Your task to perform on an android device: check battery use Image 0: 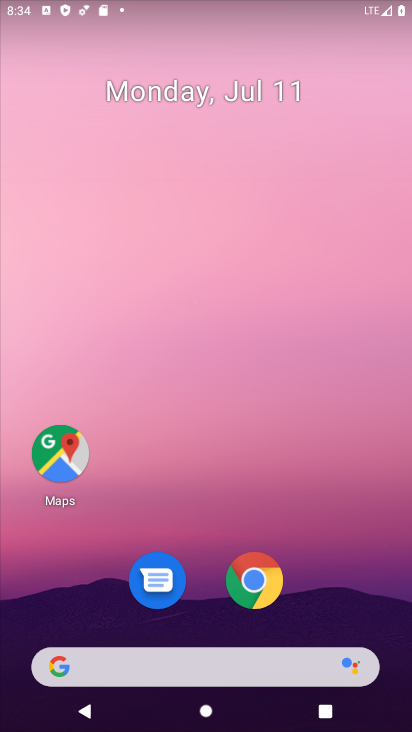
Step 0: drag from (331, 534) to (310, 61)
Your task to perform on an android device: check battery use Image 1: 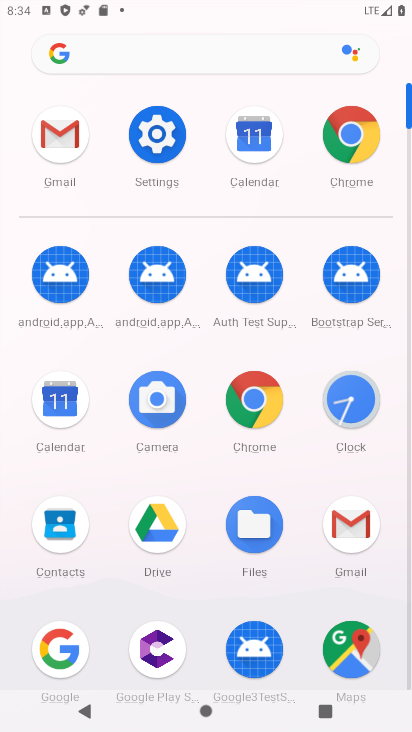
Step 1: click (168, 142)
Your task to perform on an android device: check battery use Image 2: 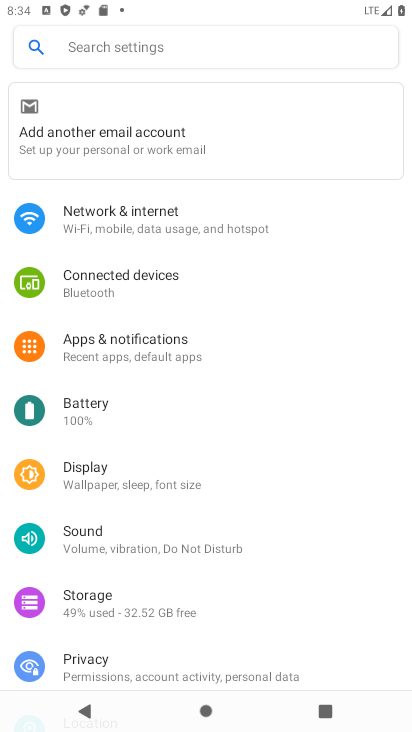
Step 2: click (118, 413)
Your task to perform on an android device: check battery use Image 3: 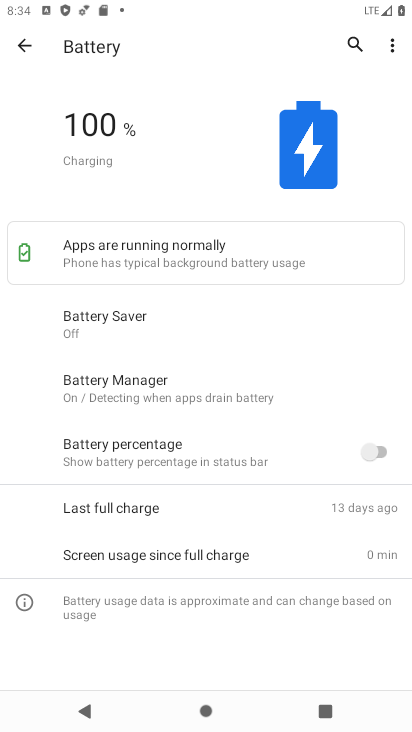
Step 3: task complete